Your task to perform on an android device: open chrome privacy settings Image 0: 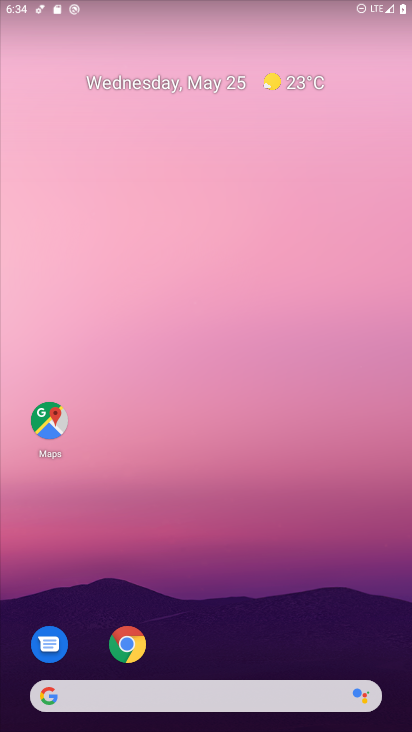
Step 0: drag from (384, 663) to (270, 72)
Your task to perform on an android device: open chrome privacy settings Image 1: 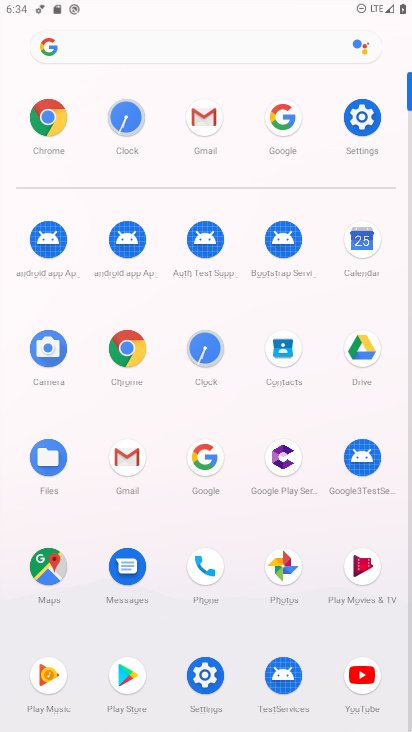
Step 1: click (132, 346)
Your task to perform on an android device: open chrome privacy settings Image 2: 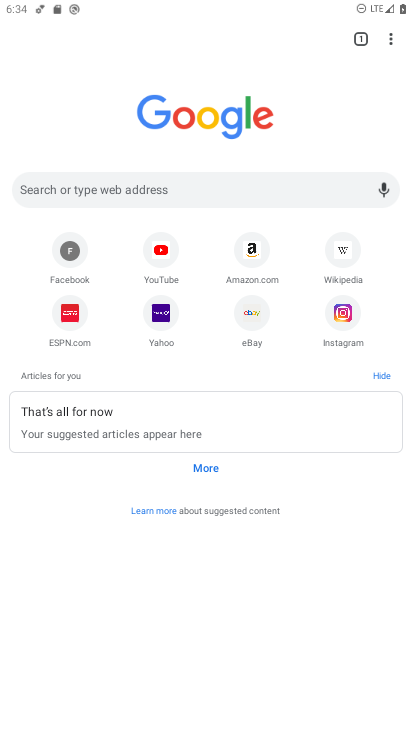
Step 2: click (132, 346)
Your task to perform on an android device: open chrome privacy settings Image 3: 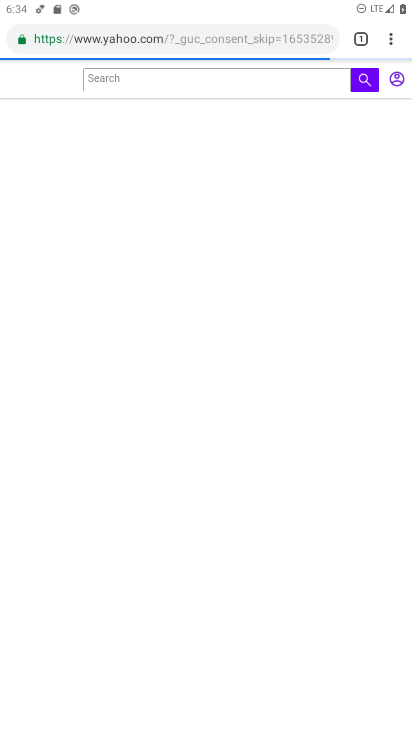
Step 3: press back button
Your task to perform on an android device: open chrome privacy settings Image 4: 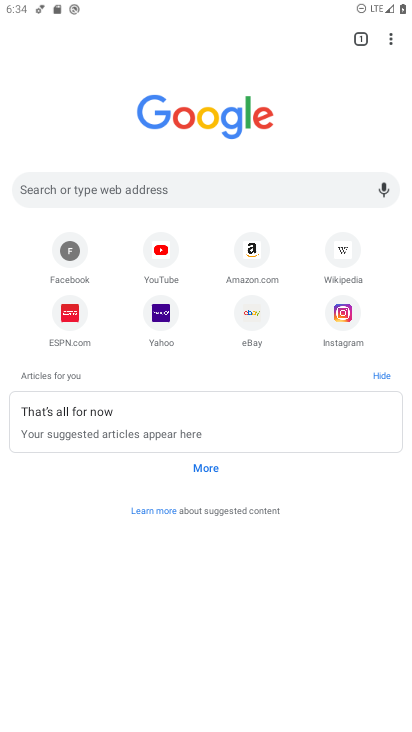
Step 4: click (392, 41)
Your task to perform on an android device: open chrome privacy settings Image 5: 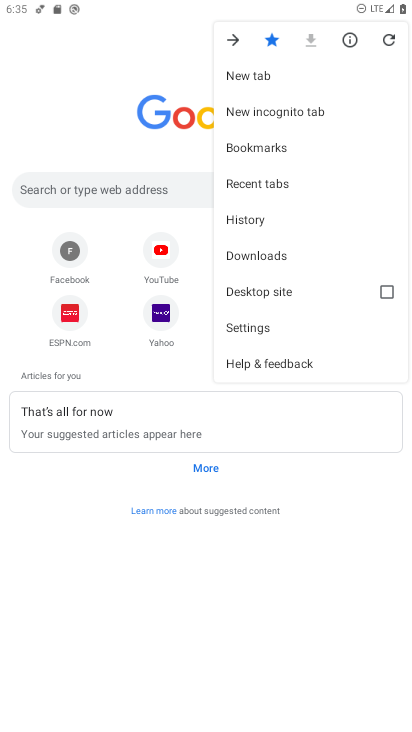
Step 5: click (249, 314)
Your task to perform on an android device: open chrome privacy settings Image 6: 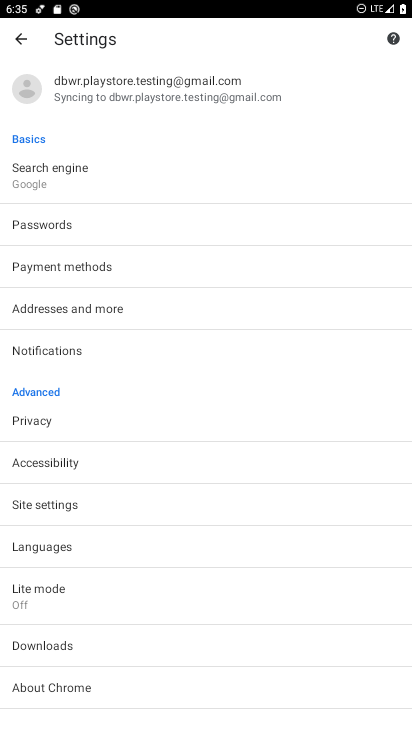
Step 6: click (68, 432)
Your task to perform on an android device: open chrome privacy settings Image 7: 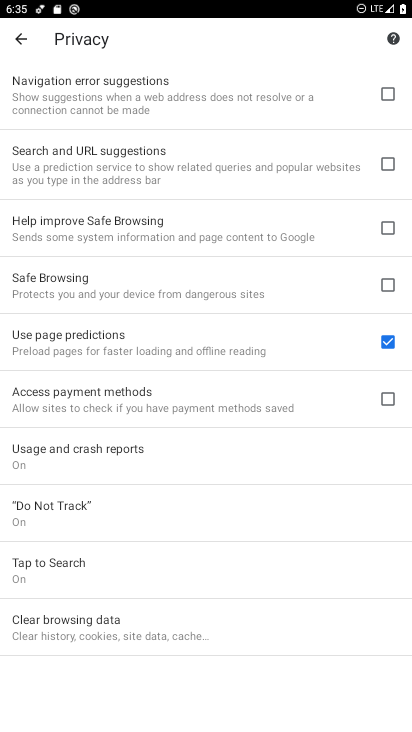
Step 7: task complete